Your task to perform on an android device: Open the Play Movies app and select the watchlist tab. Image 0: 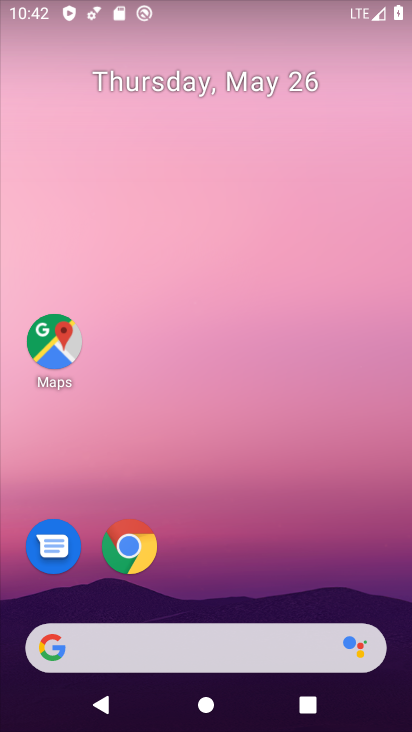
Step 0: press home button
Your task to perform on an android device: Open the Play Movies app and select the watchlist tab. Image 1: 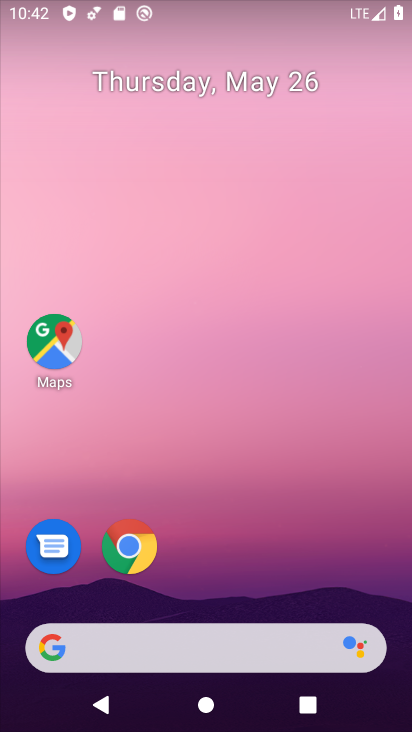
Step 1: drag from (248, 557) to (292, 54)
Your task to perform on an android device: Open the Play Movies app and select the watchlist tab. Image 2: 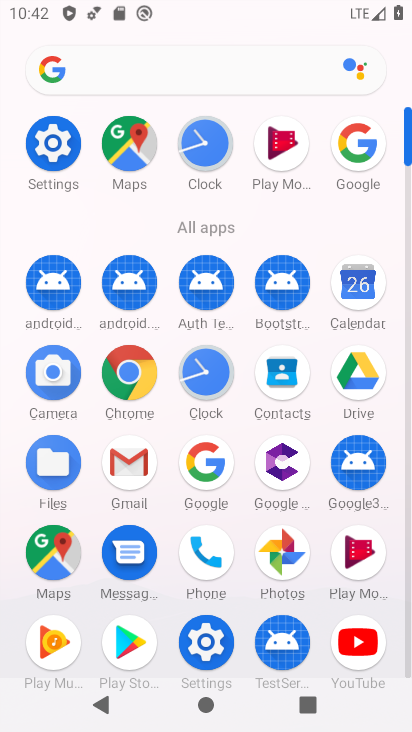
Step 2: click (361, 555)
Your task to perform on an android device: Open the Play Movies app and select the watchlist tab. Image 3: 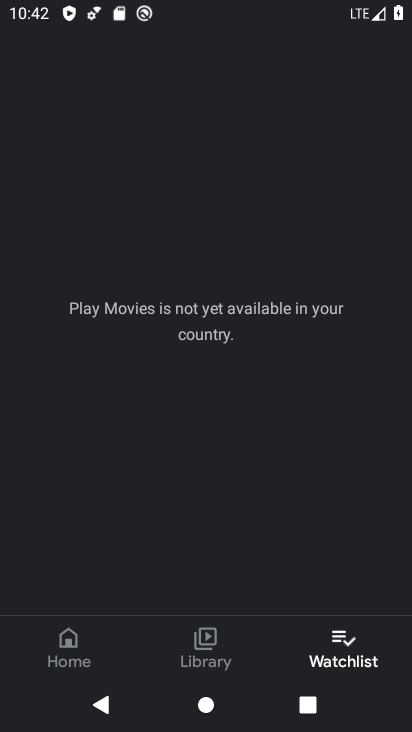
Step 3: click (344, 647)
Your task to perform on an android device: Open the Play Movies app and select the watchlist tab. Image 4: 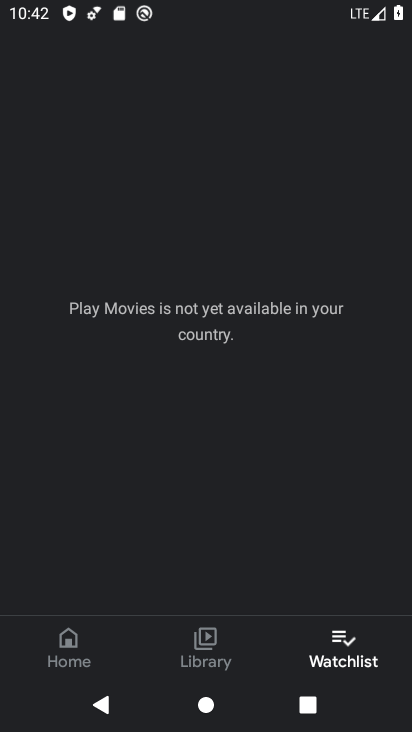
Step 4: task complete